Your task to perform on an android device: Open wifi settings Image 0: 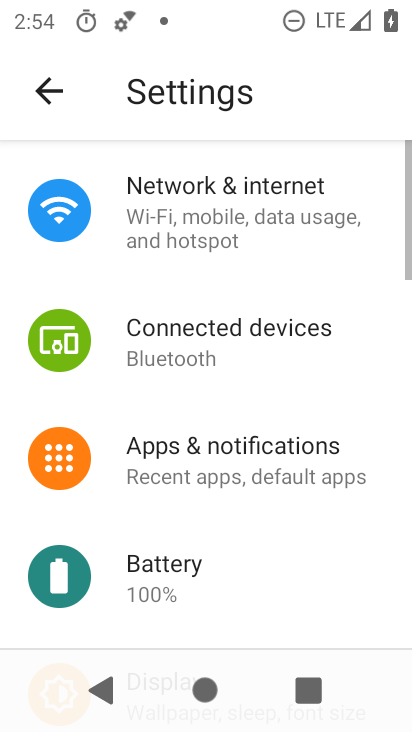
Step 0: press home button
Your task to perform on an android device: Open wifi settings Image 1: 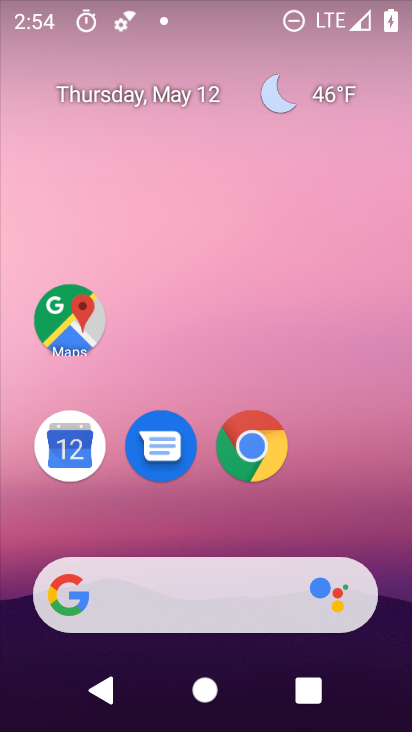
Step 1: drag from (170, 519) to (244, 263)
Your task to perform on an android device: Open wifi settings Image 2: 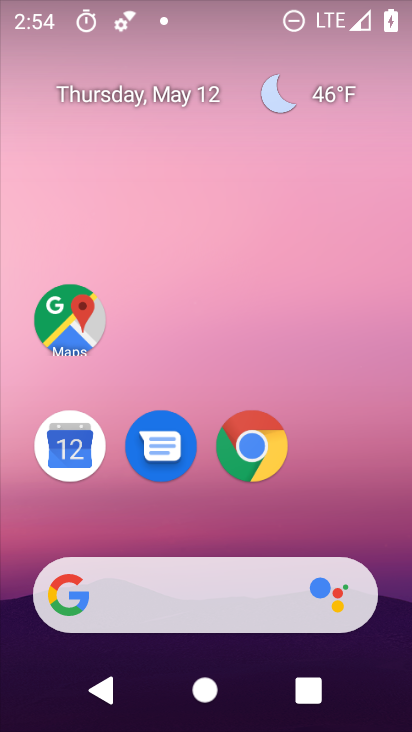
Step 2: drag from (242, 506) to (264, 0)
Your task to perform on an android device: Open wifi settings Image 3: 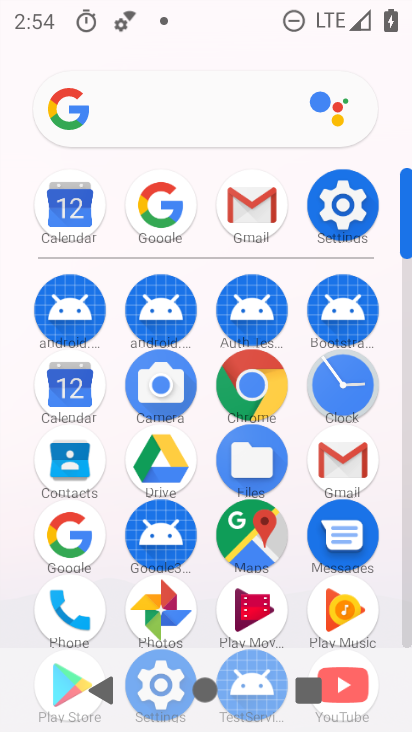
Step 3: click (346, 194)
Your task to perform on an android device: Open wifi settings Image 4: 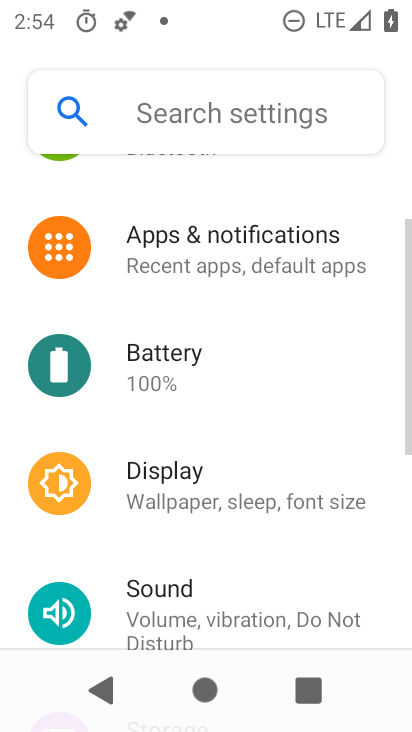
Step 4: drag from (192, 185) to (215, 469)
Your task to perform on an android device: Open wifi settings Image 5: 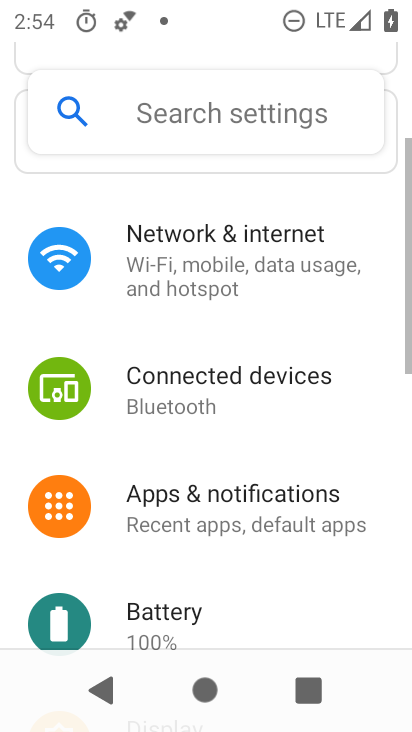
Step 5: drag from (201, 225) to (209, 488)
Your task to perform on an android device: Open wifi settings Image 6: 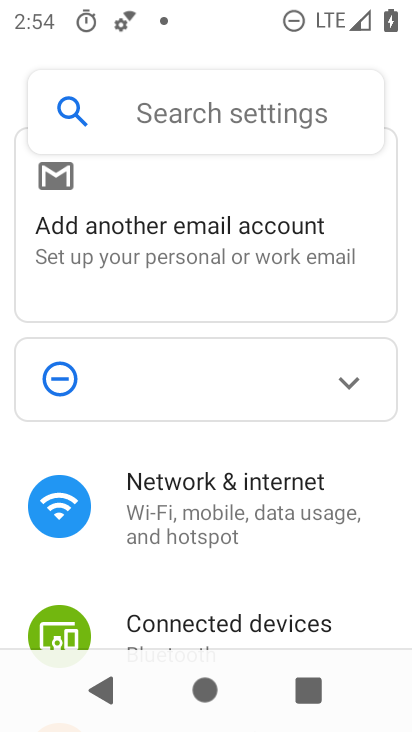
Step 6: click (189, 469)
Your task to perform on an android device: Open wifi settings Image 7: 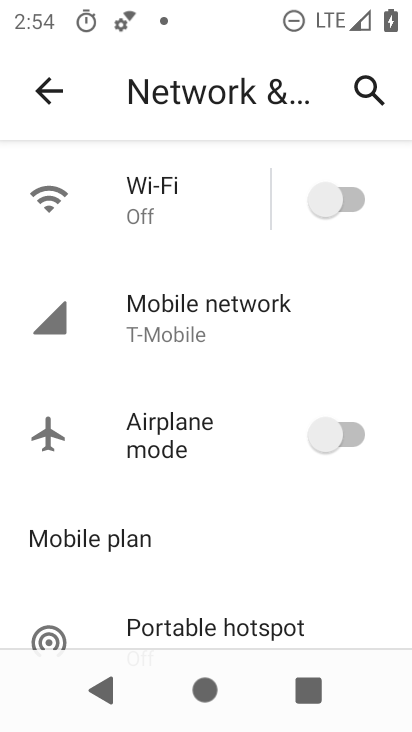
Step 7: click (227, 176)
Your task to perform on an android device: Open wifi settings Image 8: 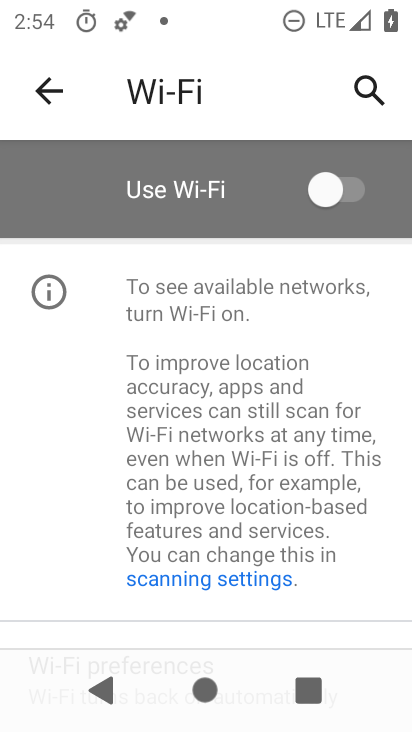
Step 8: task complete